Your task to perform on an android device: turn off airplane mode Image 0: 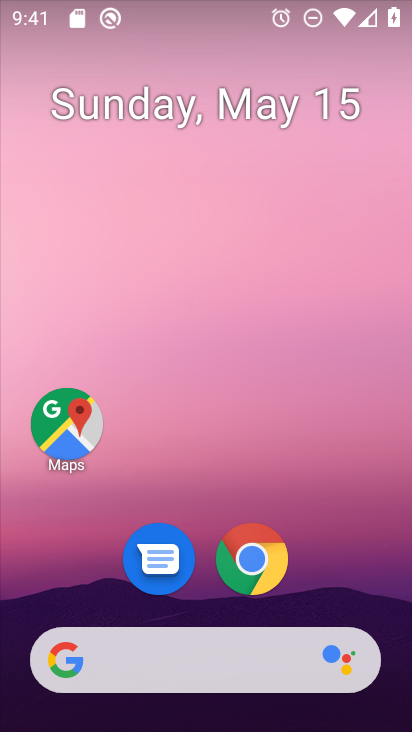
Step 0: drag from (332, 578) to (325, 9)
Your task to perform on an android device: turn off airplane mode Image 1: 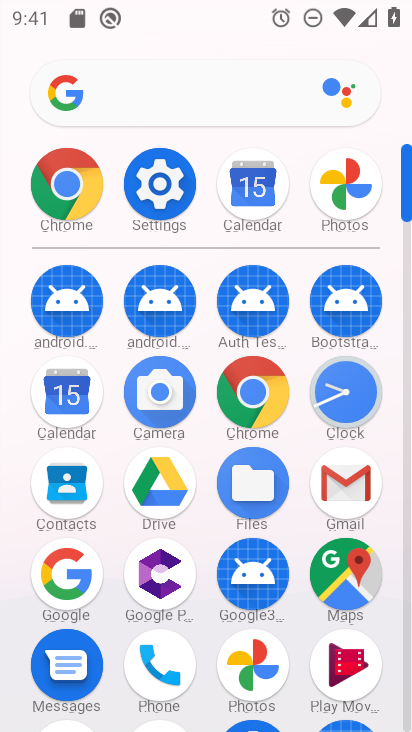
Step 1: click (155, 208)
Your task to perform on an android device: turn off airplane mode Image 2: 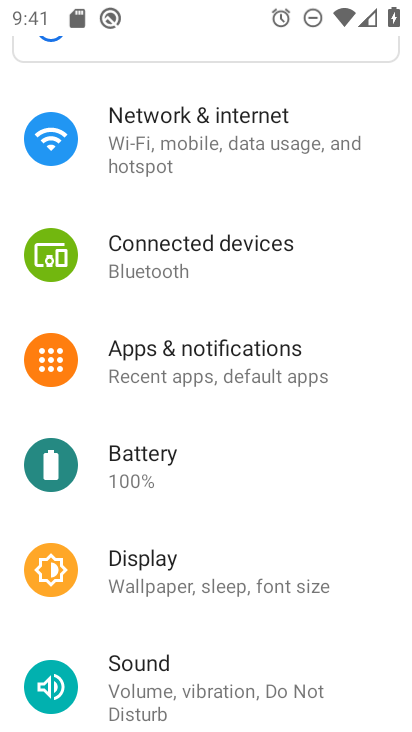
Step 2: click (168, 129)
Your task to perform on an android device: turn off airplane mode Image 3: 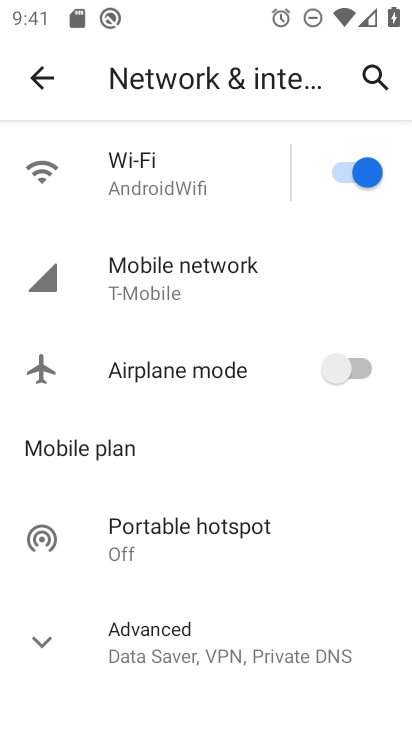
Step 3: task complete